Your task to perform on an android device: turn on improve location accuracy Image 0: 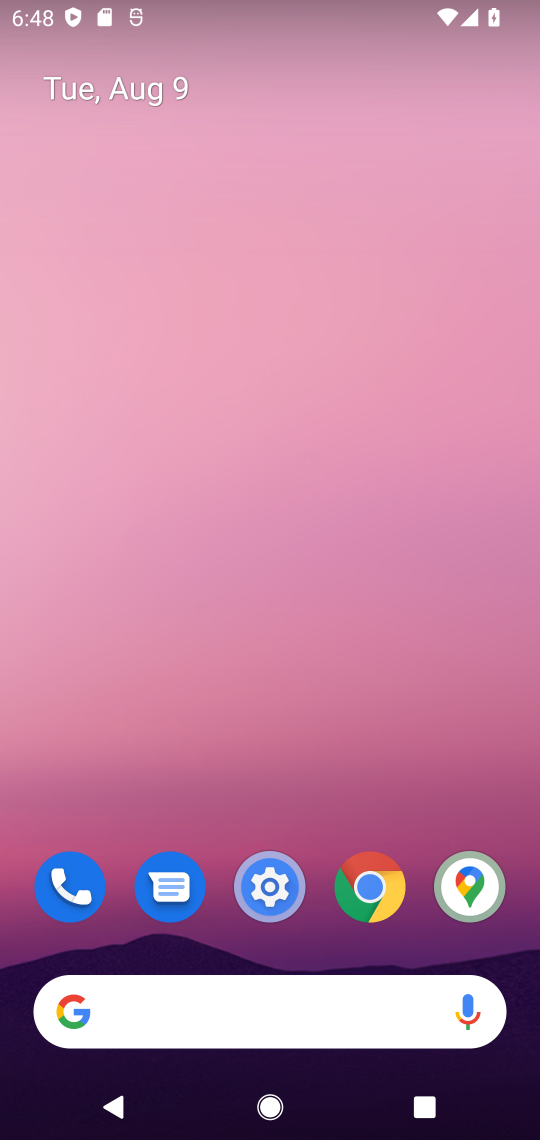
Step 0: click (272, 880)
Your task to perform on an android device: turn on improve location accuracy Image 1: 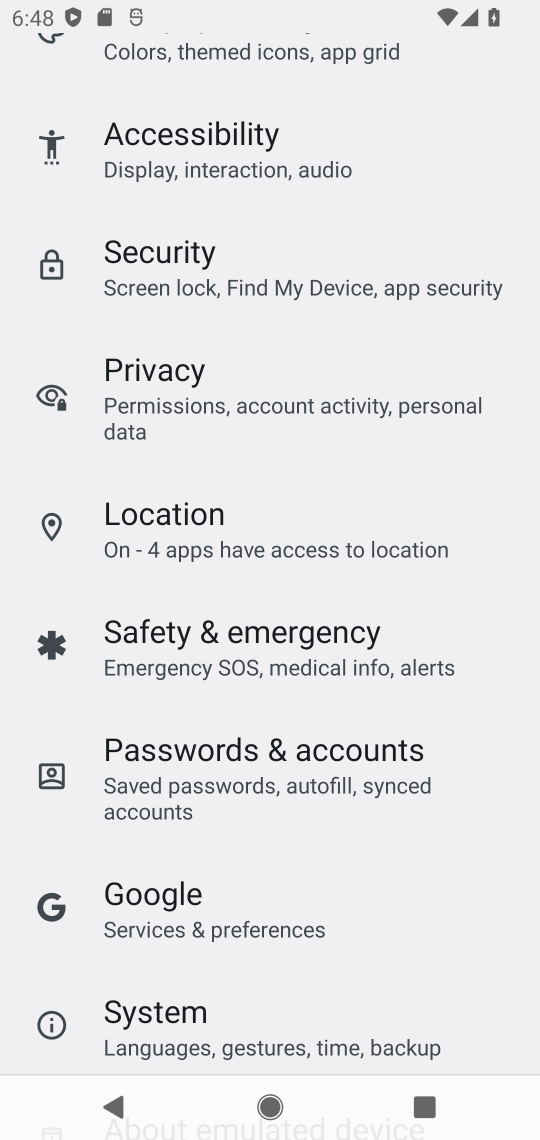
Step 1: click (316, 549)
Your task to perform on an android device: turn on improve location accuracy Image 2: 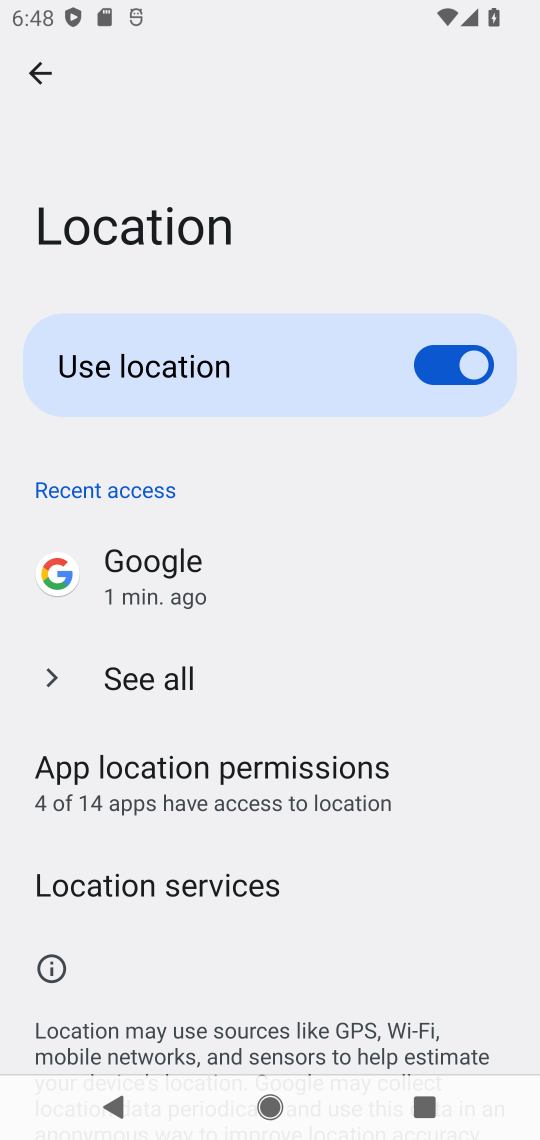
Step 2: click (253, 882)
Your task to perform on an android device: turn on improve location accuracy Image 3: 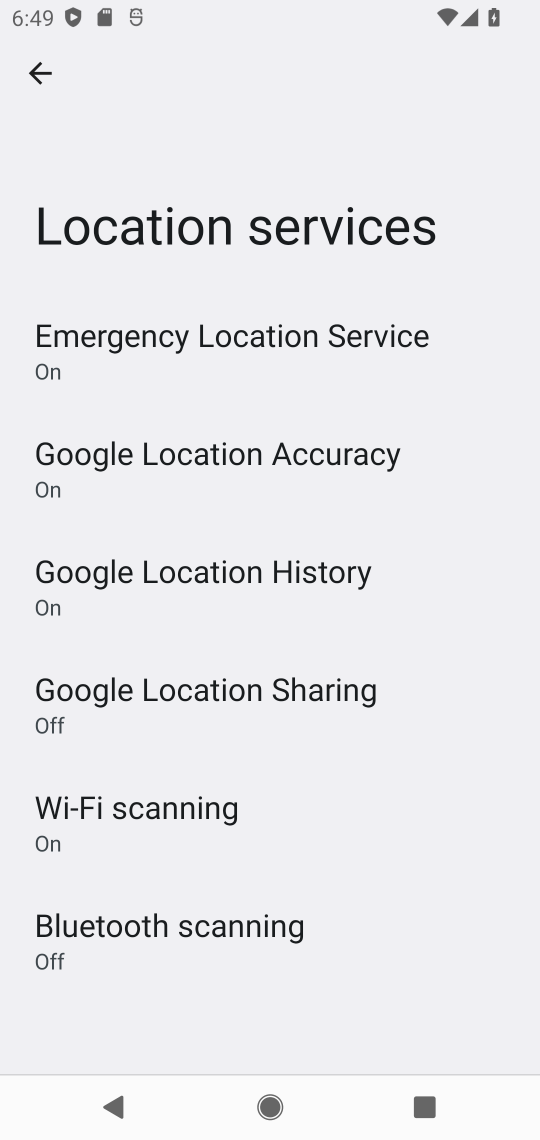
Step 3: task complete